Your task to perform on an android device: turn on location history Image 0: 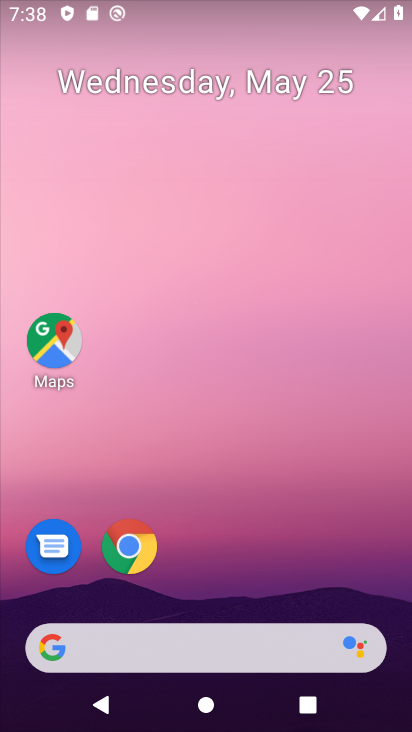
Step 0: drag from (206, 554) to (165, 16)
Your task to perform on an android device: turn on location history Image 1: 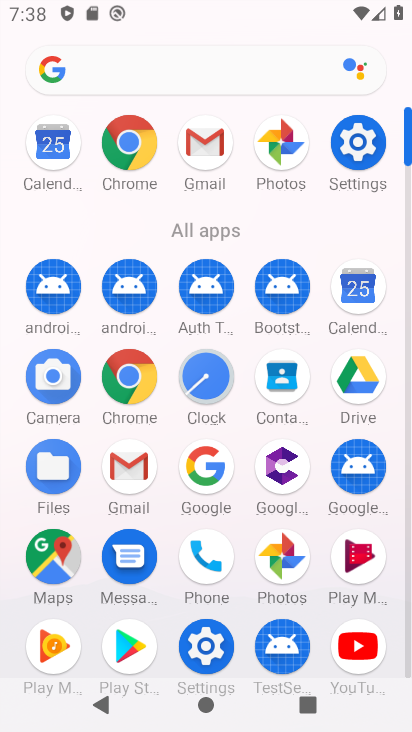
Step 1: click (352, 183)
Your task to perform on an android device: turn on location history Image 2: 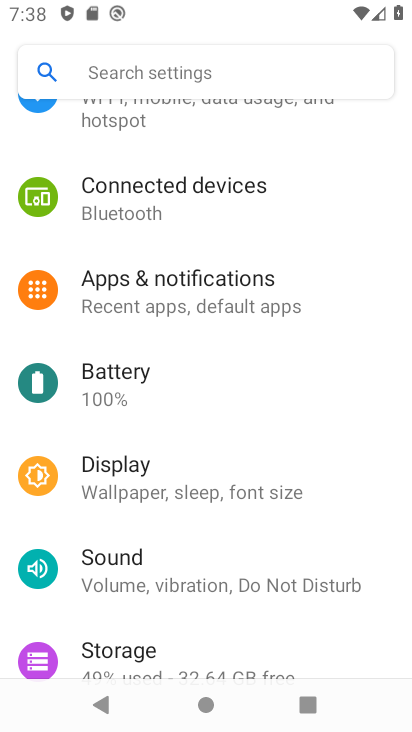
Step 2: drag from (131, 125) to (131, 436)
Your task to perform on an android device: turn on location history Image 3: 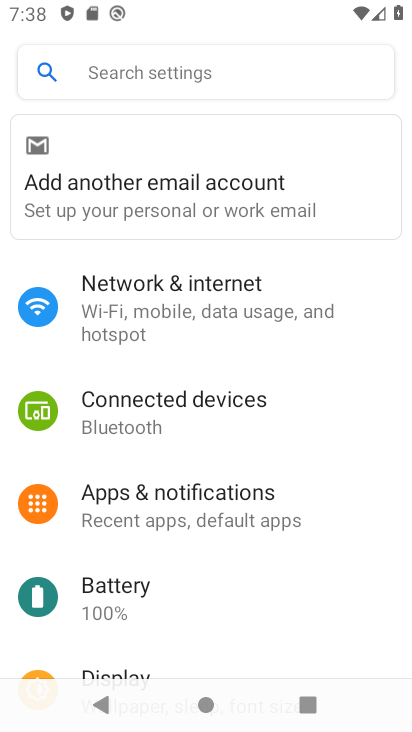
Step 3: drag from (166, 427) to (169, 205)
Your task to perform on an android device: turn on location history Image 4: 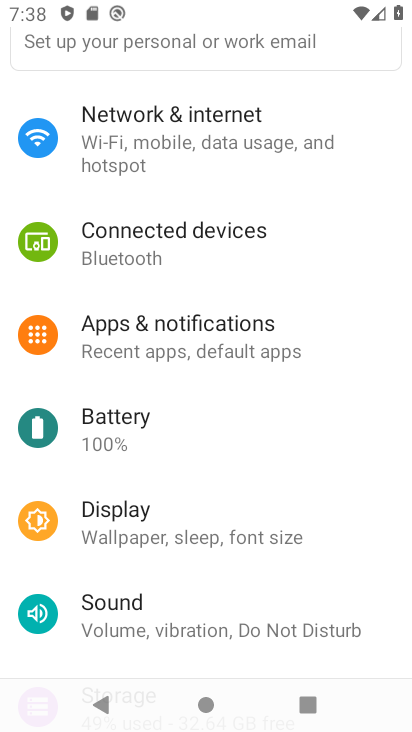
Step 4: drag from (155, 591) to (194, 299)
Your task to perform on an android device: turn on location history Image 5: 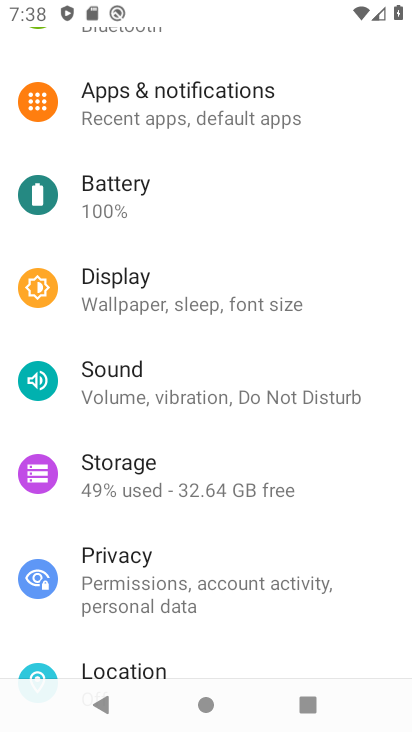
Step 5: drag from (122, 650) to (177, 282)
Your task to perform on an android device: turn on location history Image 6: 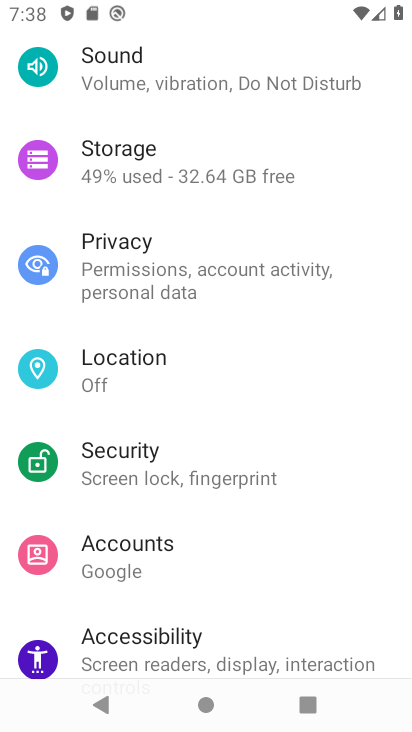
Step 6: click (122, 379)
Your task to perform on an android device: turn on location history Image 7: 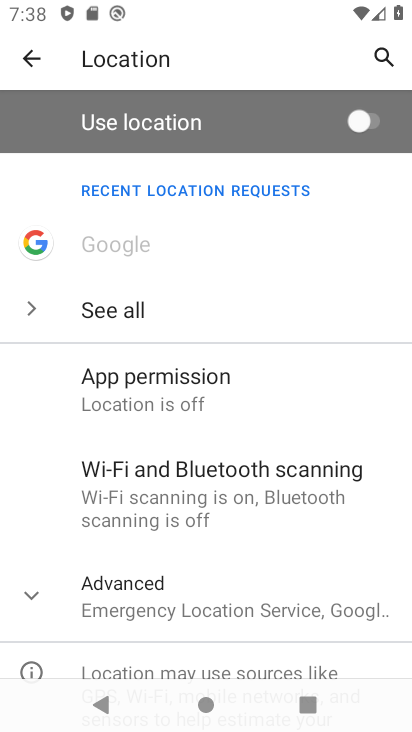
Step 7: click (119, 605)
Your task to perform on an android device: turn on location history Image 8: 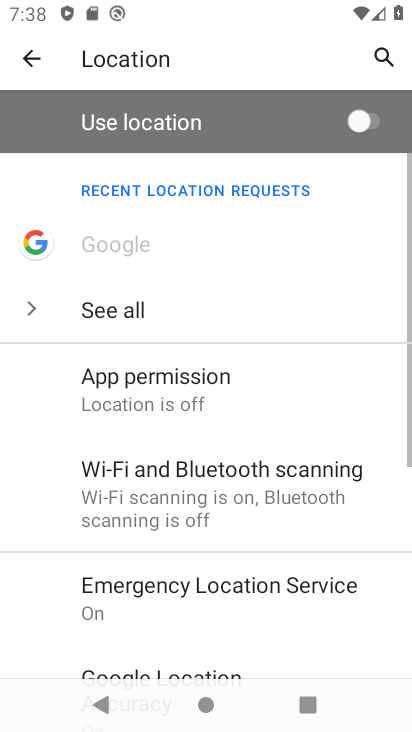
Step 8: drag from (165, 668) to (204, 495)
Your task to perform on an android device: turn on location history Image 9: 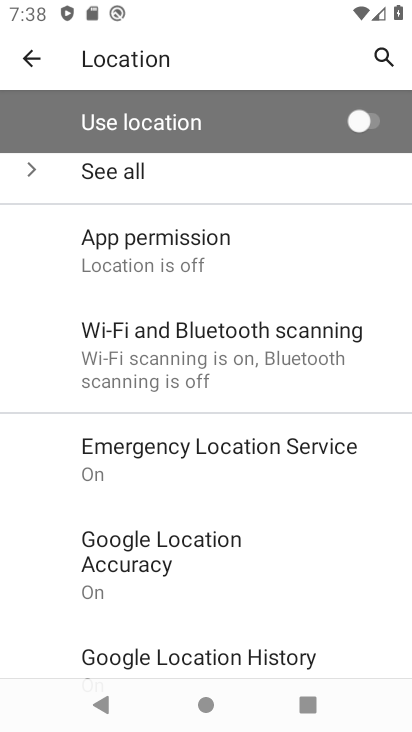
Step 9: click (168, 655)
Your task to perform on an android device: turn on location history Image 10: 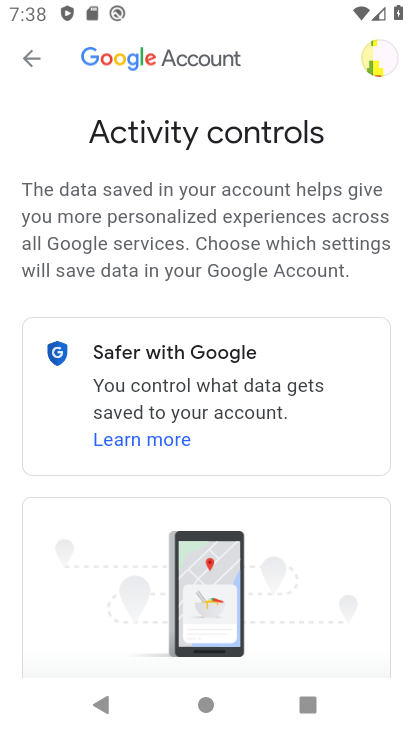
Step 10: task complete